Your task to perform on an android device: turn off improve location accuracy Image 0: 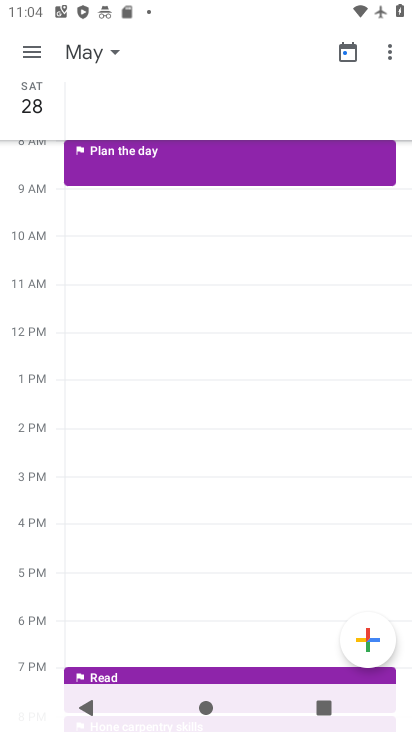
Step 0: press home button
Your task to perform on an android device: turn off improve location accuracy Image 1: 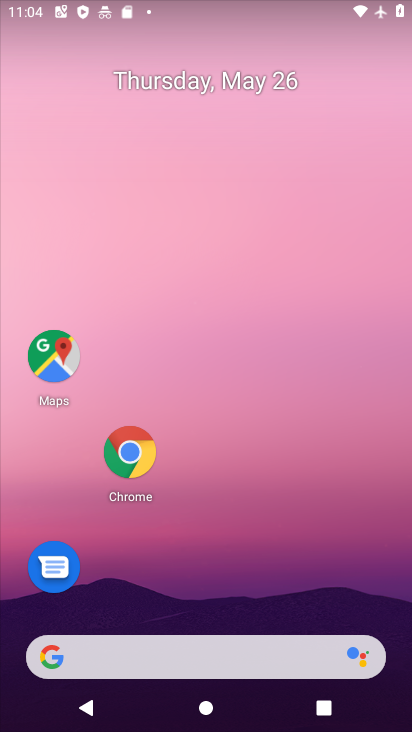
Step 1: drag from (154, 660) to (314, 119)
Your task to perform on an android device: turn off improve location accuracy Image 2: 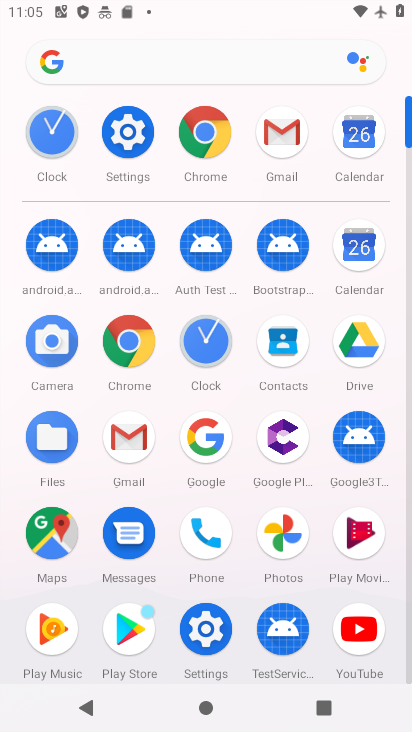
Step 2: click (144, 129)
Your task to perform on an android device: turn off improve location accuracy Image 3: 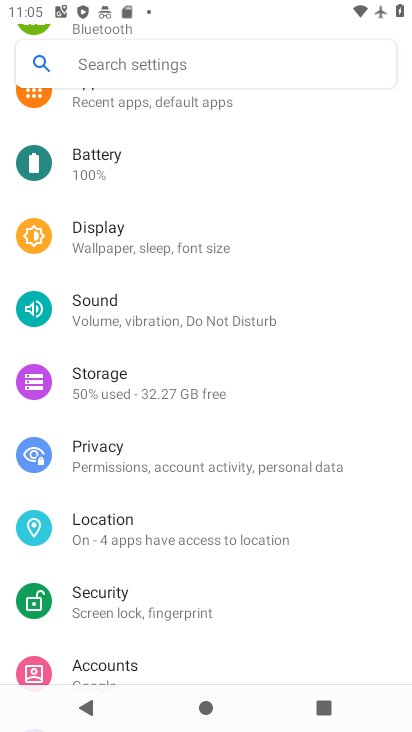
Step 3: click (107, 519)
Your task to perform on an android device: turn off improve location accuracy Image 4: 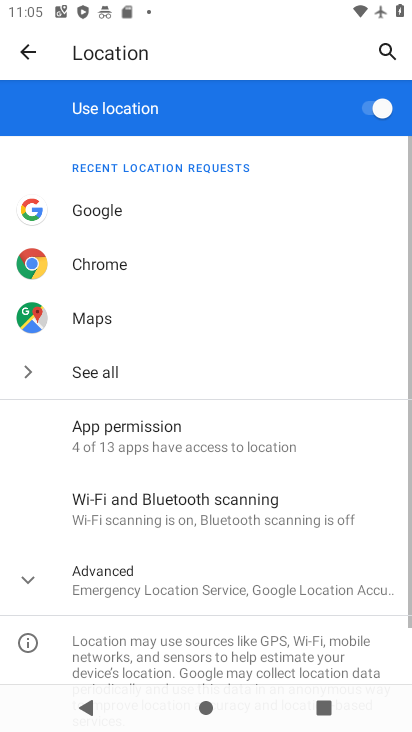
Step 4: click (143, 590)
Your task to perform on an android device: turn off improve location accuracy Image 5: 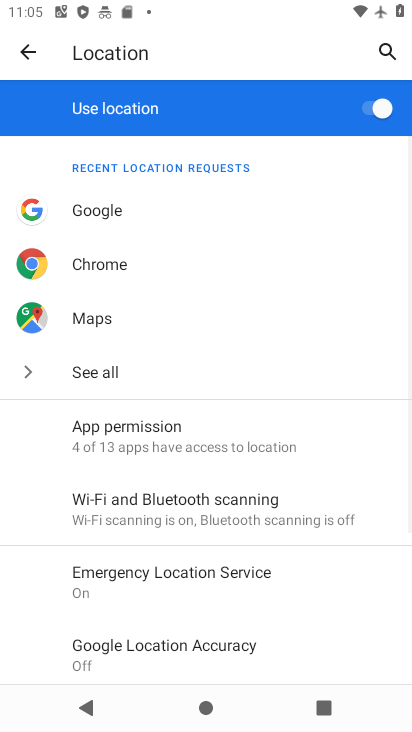
Step 5: drag from (193, 611) to (298, 332)
Your task to perform on an android device: turn off improve location accuracy Image 6: 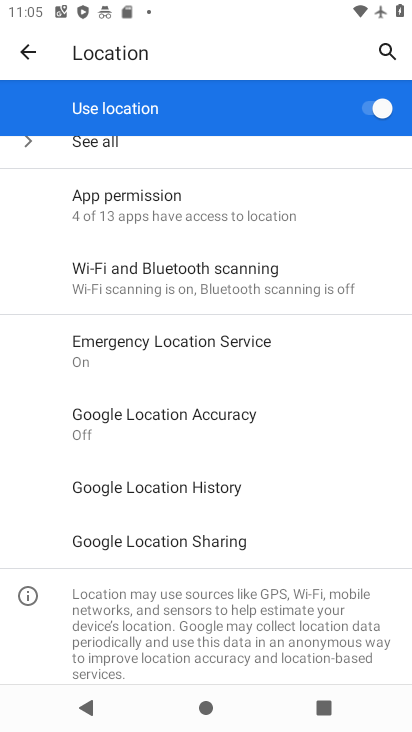
Step 6: click (179, 419)
Your task to perform on an android device: turn off improve location accuracy Image 7: 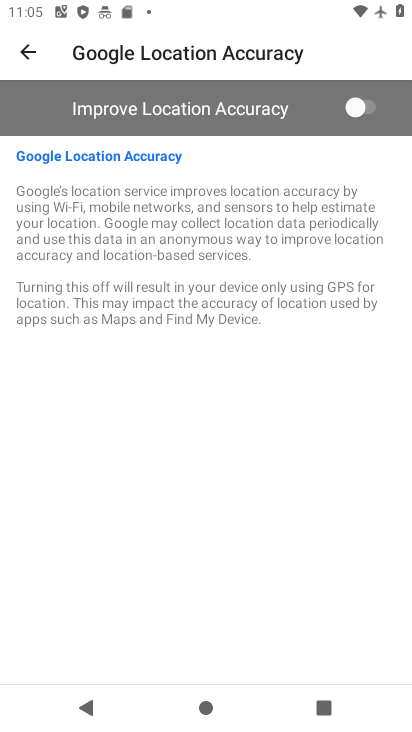
Step 7: task complete